Your task to perform on an android device: Search for "logitech g pro" on amazon.com, select the first entry, add it to the cart, then select checkout. Image 0: 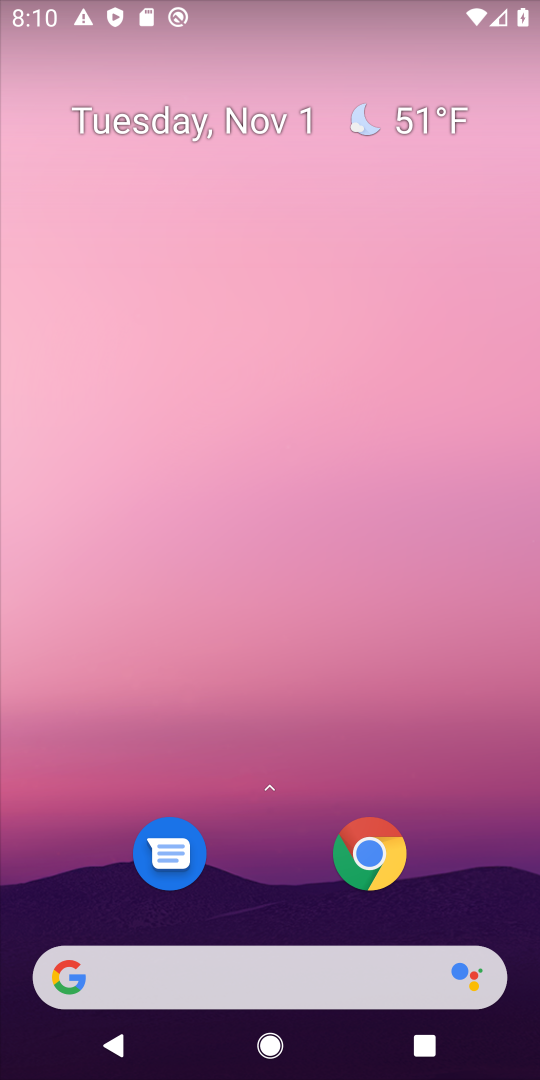
Step 0: task complete